Your task to perform on an android device: Open ESPN.com Image 0: 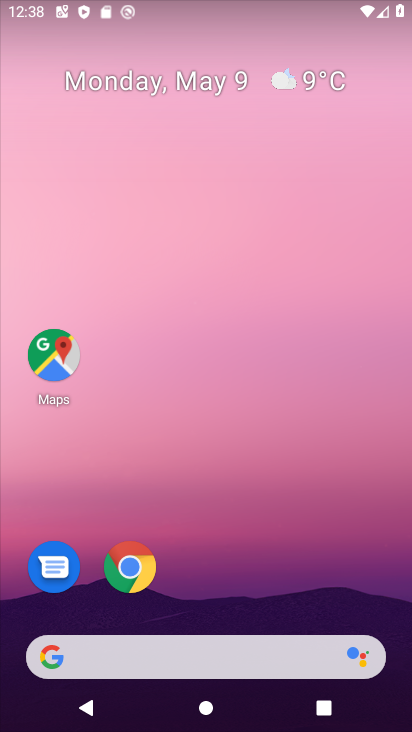
Step 0: drag from (233, 691) to (234, 277)
Your task to perform on an android device: Open ESPN.com Image 1: 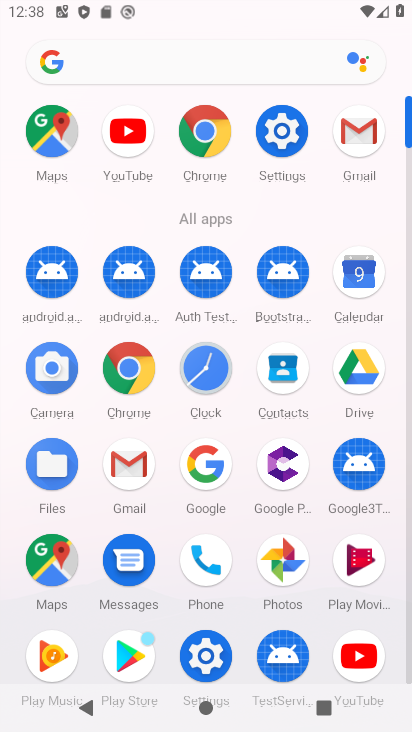
Step 1: click (205, 131)
Your task to perform on an android device: Open ESPN.com Image 2: 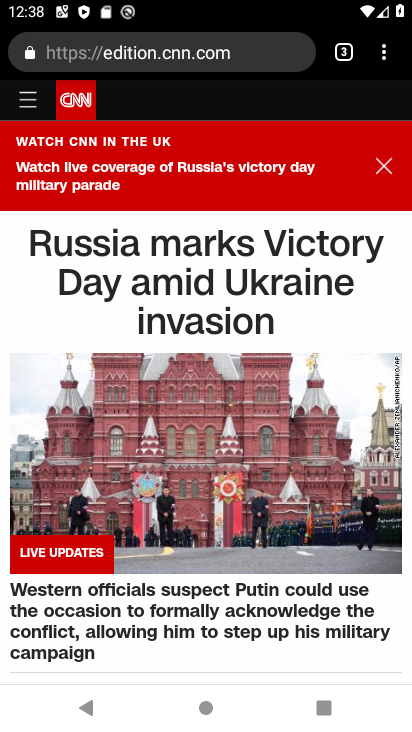
Step 2: click (235, 67)
Your task to perform on an android device: Open ESPN.com Image 3: 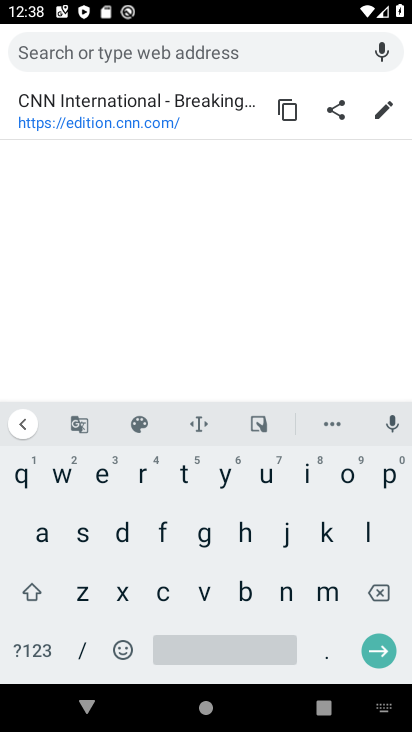
Step 3: click (101, 484)
Your task to perform on an android device: Open ESPN.com Image 4: 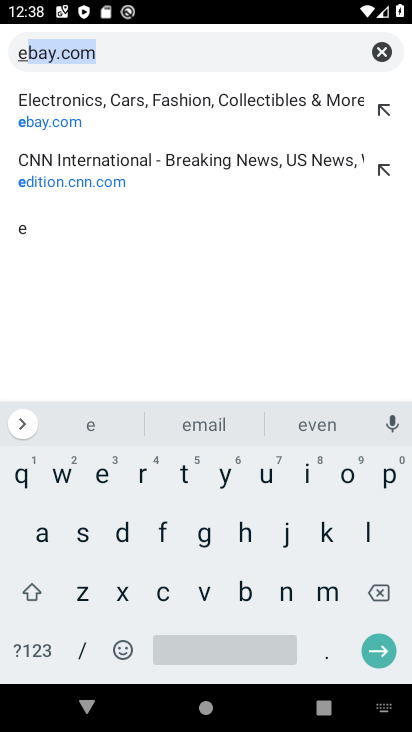
Step 4: click (80, 537)
Your task to perform on an android device: Open ESPN.com Image 5: 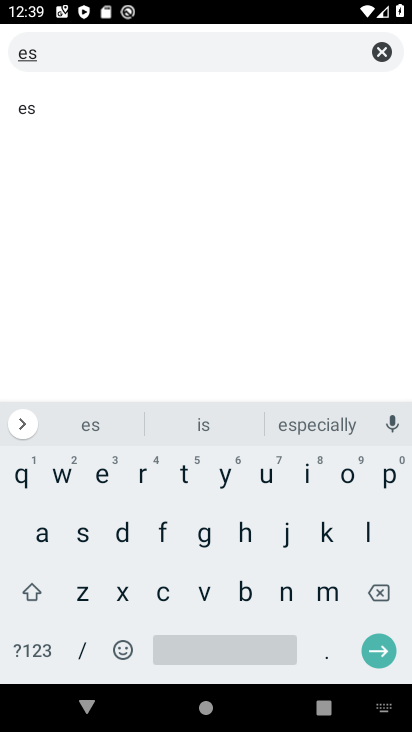
Step 5: click (380, 481)
Your task to perform on an android device: Open ESPN.com Image 6: 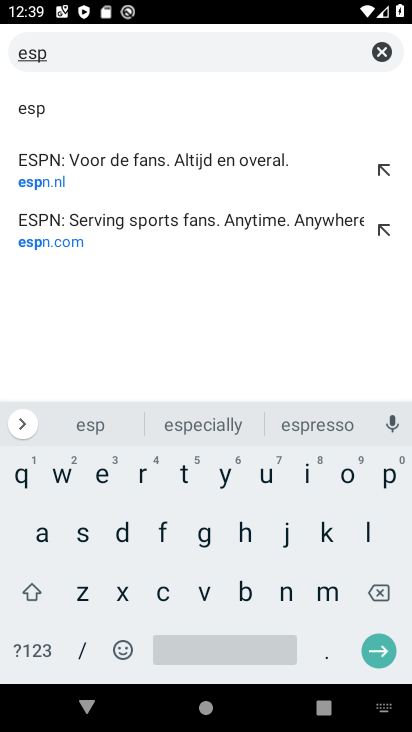
Step 6: click (45, 227)
Your task to perform on an android device: Open ESPN.com Image 7: 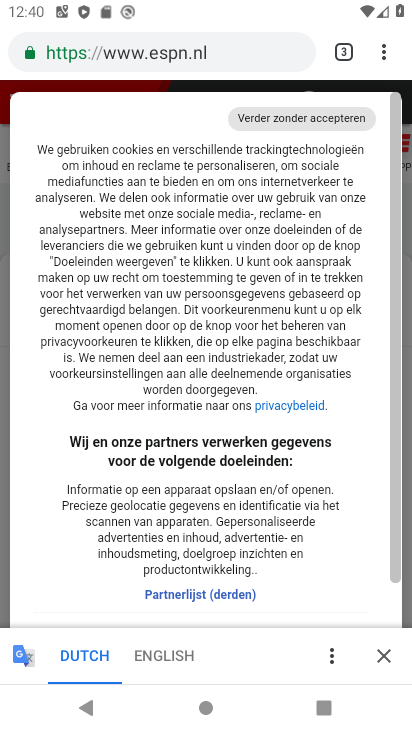
Step 7: task complete